Your task to perform on an android device: toggle sleep mode Image 0: 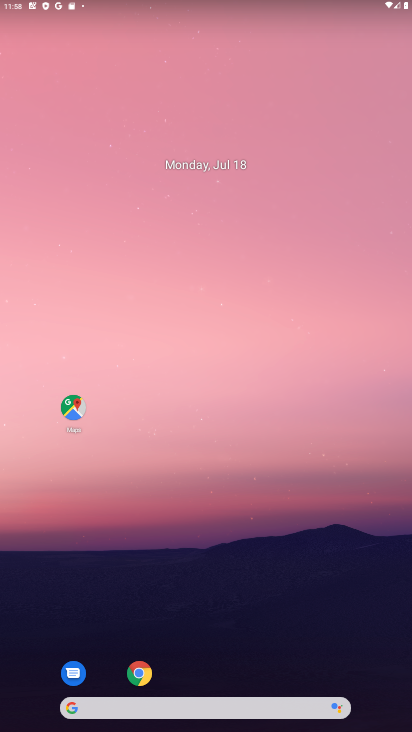
Step 0: drag from (227, 632) to (408, 697)
Your task to perform on an android device: toggle sleep mode Image 1: 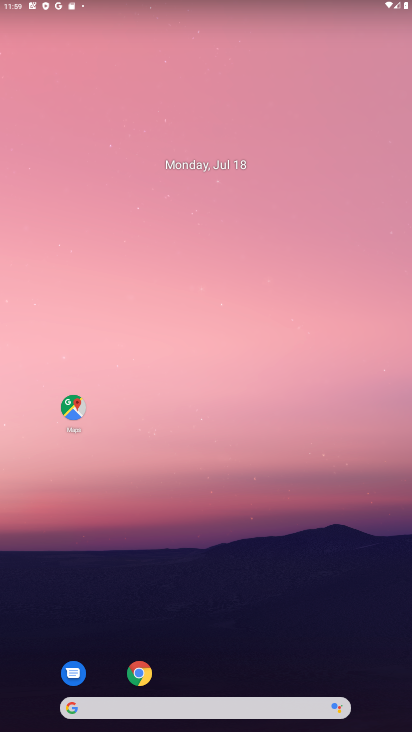
Step 1: drag from (176, 719) to (268, 157)
Your task to perform on an android device: toggle sleep mode Image 2: 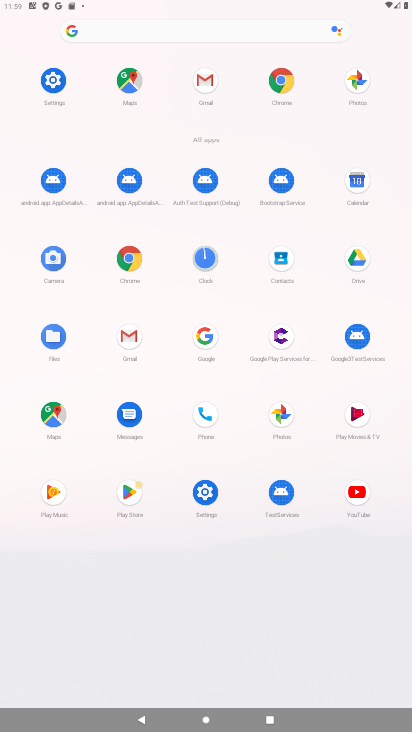
Step 2: click (67, 77)
Your task to perform on an android device: toggle sleep mode Image 3: 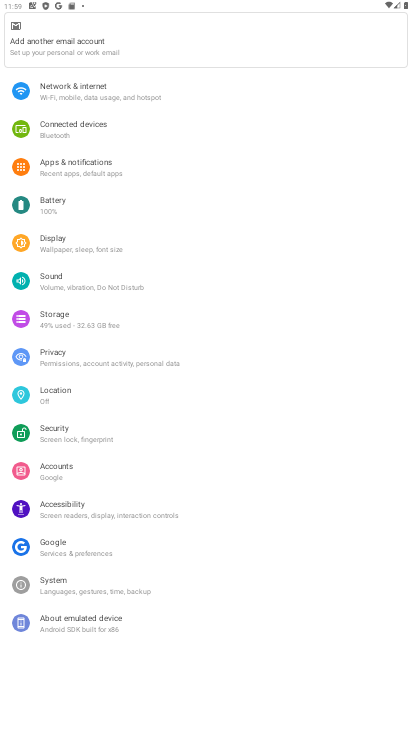
Step 3: click (115, 251)
Your task to perform on an android device: toggle sleep mode Image 4: 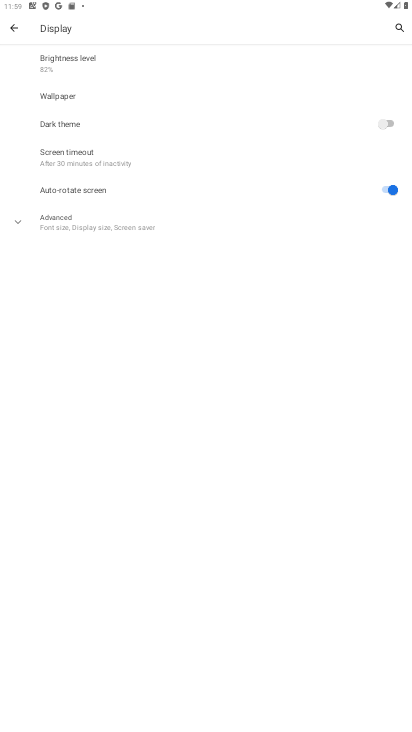
Step 4: task complete